Your task to perform on an android device: Go to Google Image 0: 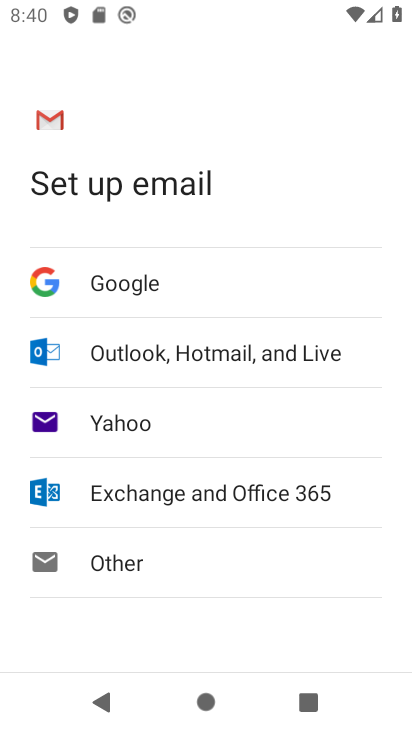
Step 0: press home button
Your task to perform on an android device: Go to Google Image 1: 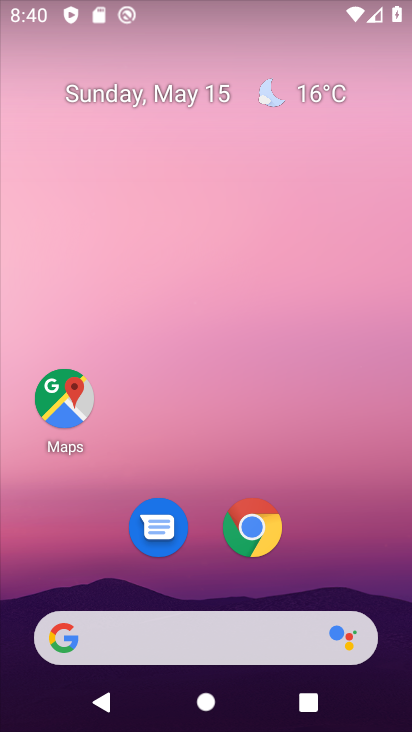
Step 1: drag from (389, 608) to (340, 17)
Your task to perform on an android device: Go to Google Image 2: 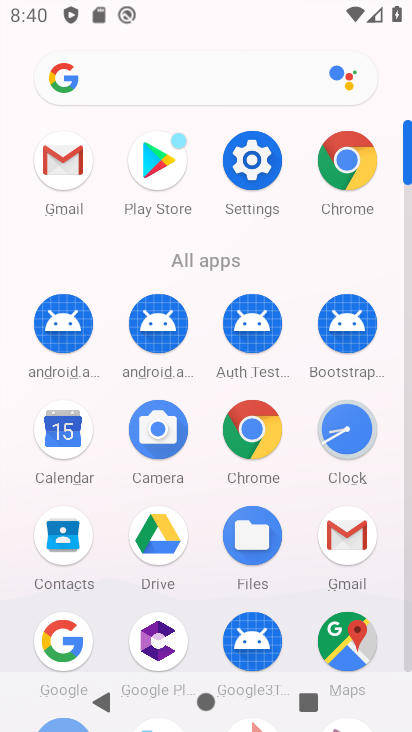
Step 2: click (62, 652)
Your task to perform on an android device: Go to Google Image 3: 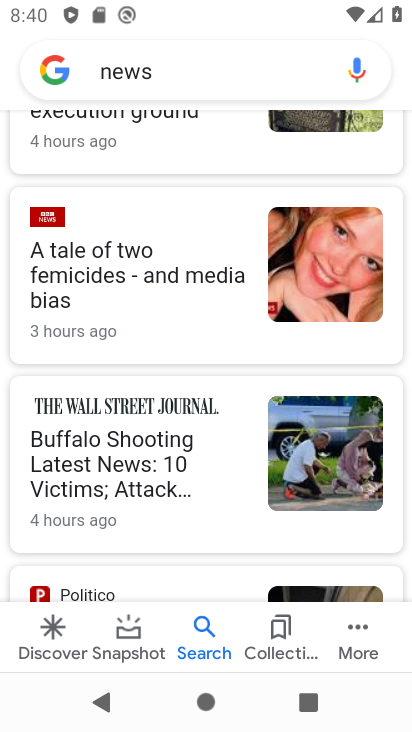
Step 3: task complete